Your task to perform on an android device: add a label to a message in the gmail app Image 0: 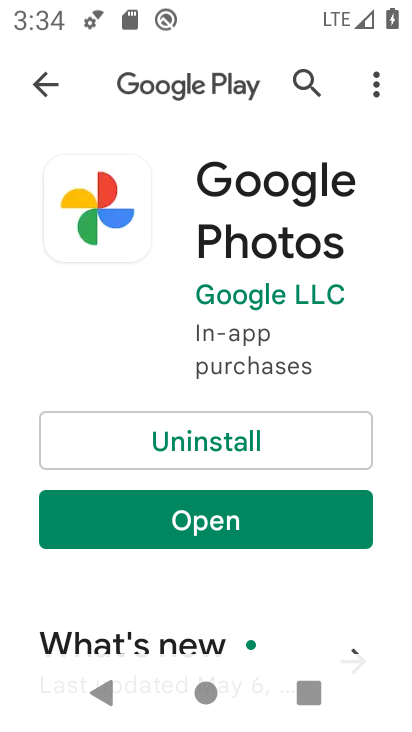
Step 0: press home button
Your task to perform on an android device: add a label to a message in the gmail app Image 1: 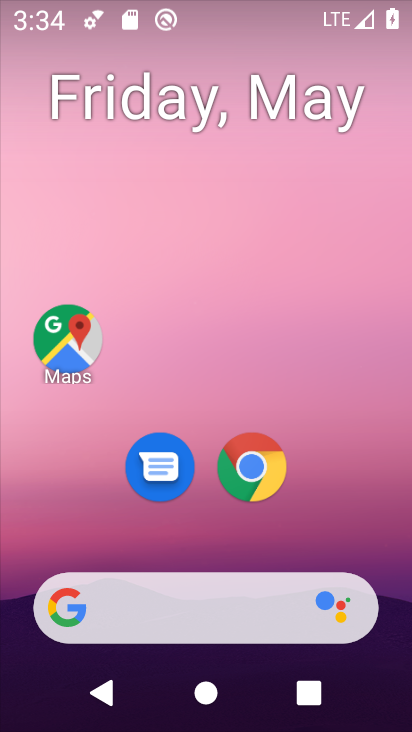
Step 1: drag from (323, 485) to (220, 13)
Your task to perform on an android device: add a label to a message in the gmail app Image 2: 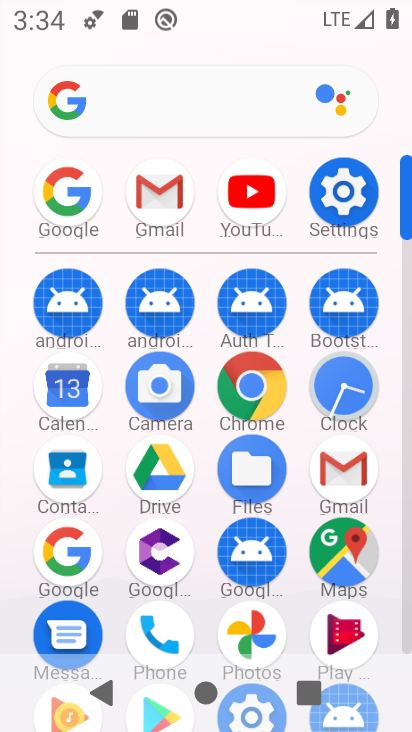
Step 2: click (340, 467)
Your task to perform on an android device: add a label to a message in the gmail app Image 3: 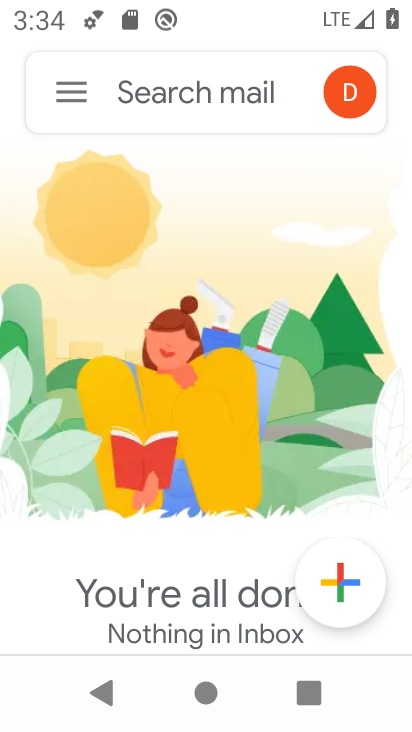
Step 3: click (76, 97)
Your task to perform on an android device: add a label to a message in the gmail app Image 4: 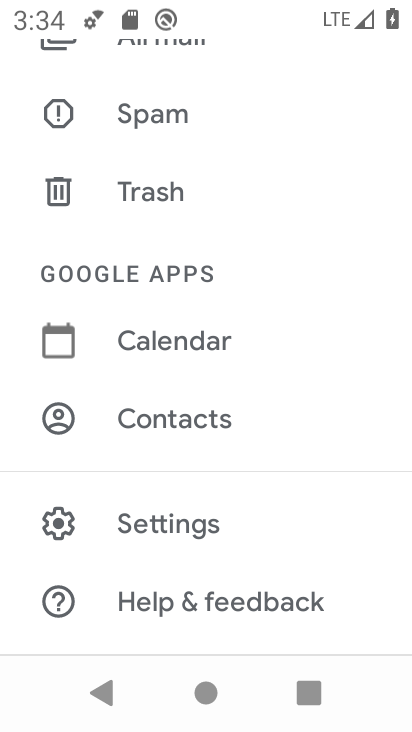
Step 4: drag from (221, 140) to (216, 441)
Your task to perform on an android device: add a label to a message in the gmail app Image 5: 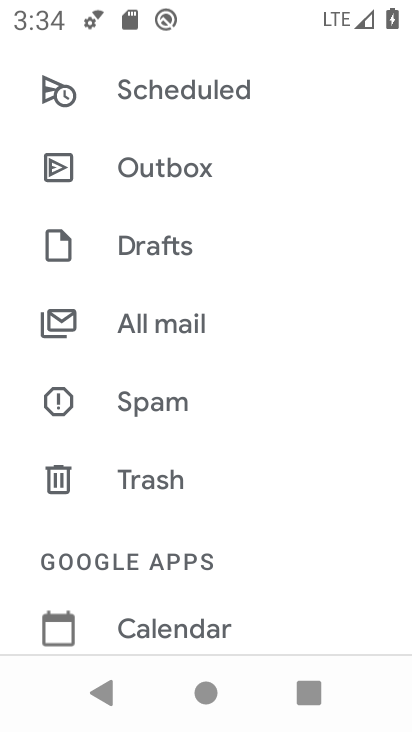
Step 5: click (209, 342)
Your task to perform on an android device: add a label to a message in the gmail app Image 6: 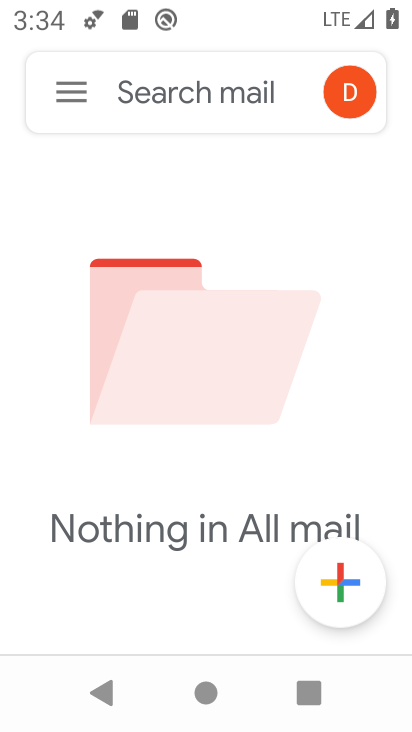
Step 6: task complete